Your task to perform on an android device: change your default location settings in chrome Image 0: 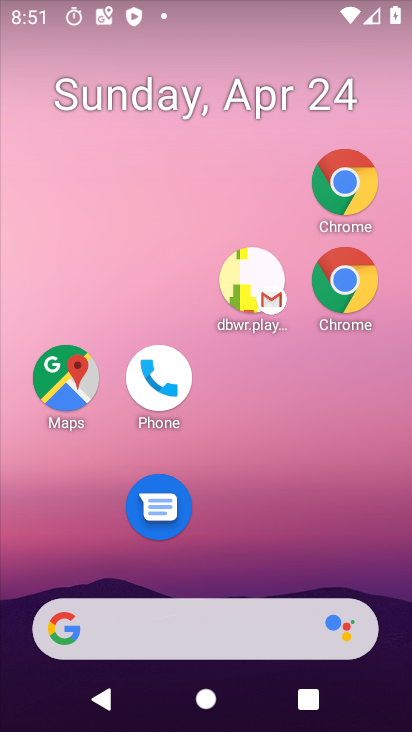
Step 0: drag from (244, 676) to (166, 121)
Your task to perform on an android device: change your default location settings in chrome Image 1: 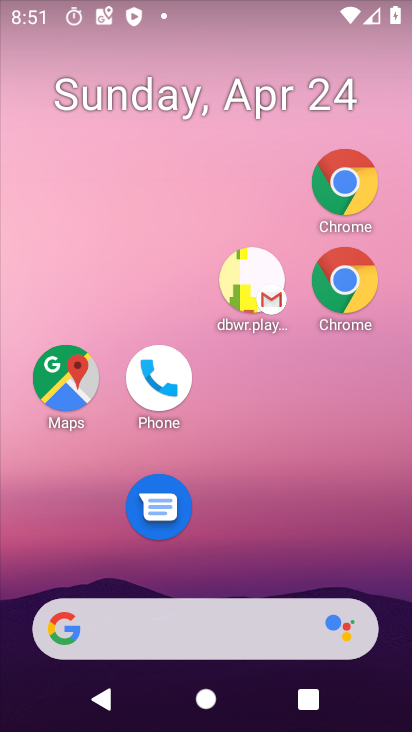
Step 1: click (340, 283)
Your task to perform on an android device: change your default location settings in chrome Image 2: 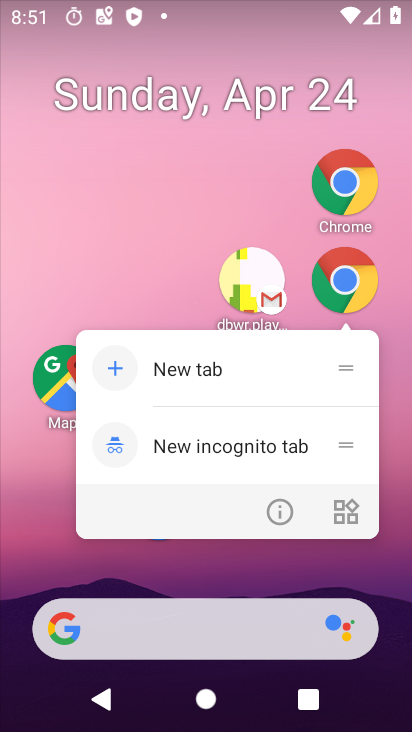
Step 2: click (158, 371)
Your task to perform on an android device: change your default location settings in chrome Image 3: 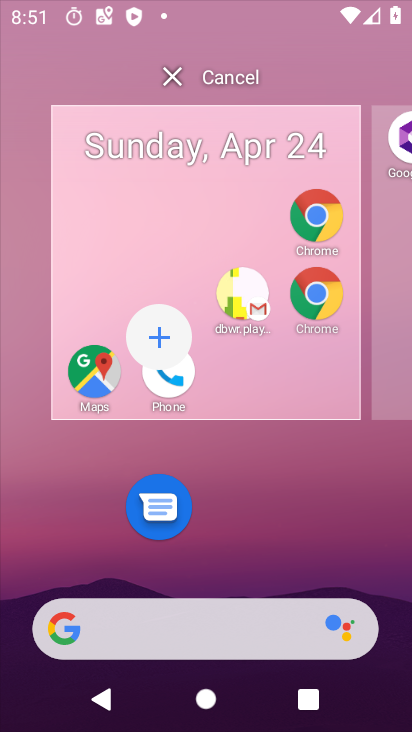
Step 3: click (184, 358)
Your task to perform on an android device: change your default location settings in chrome Image 4: 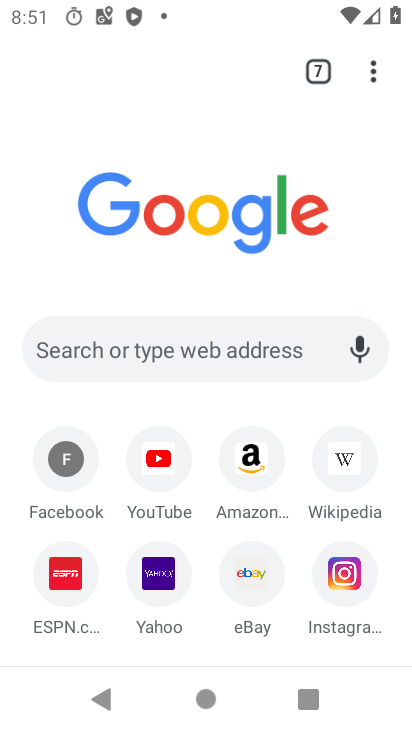
Step 4: drag from (371, 76) to (138, 510)
Your task to perform on an android device: change your default location settings in chrome Image 5: 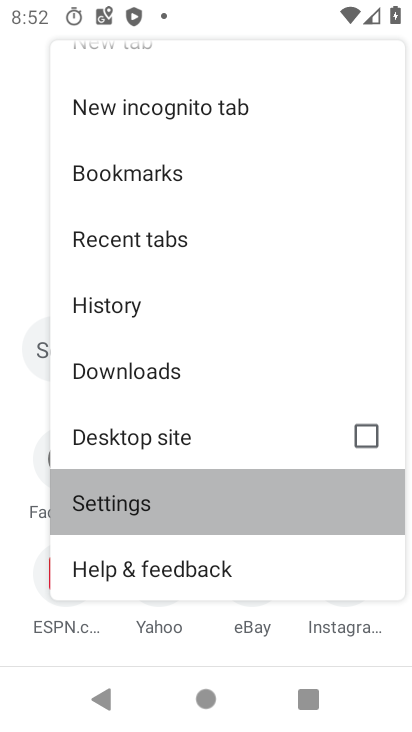
Step 5: click (146, 504)
Your task to perform on an android device: change your default location settings in chrome Image 6: 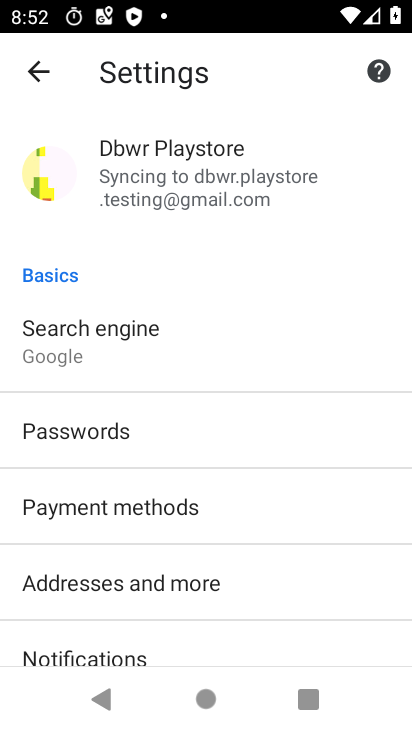
Step 6: drag from (189, 487) to (184, 21)
Your task to perform on an android device: change your default location settings in chrome Image 7: 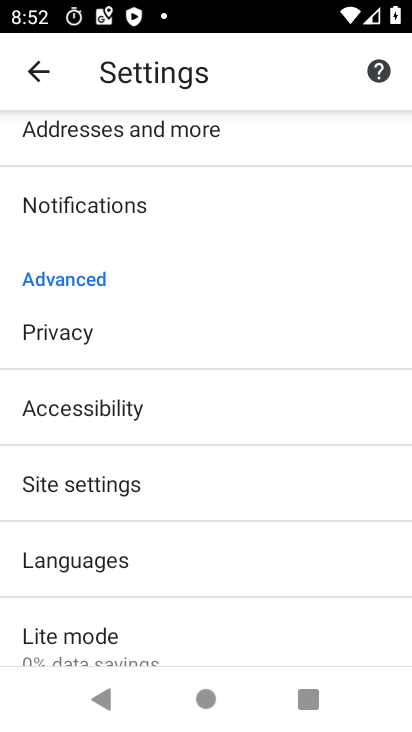
Step 7: click (68, 492)
Your task to perform on an android device: change your default location settings in chrome Image 8: 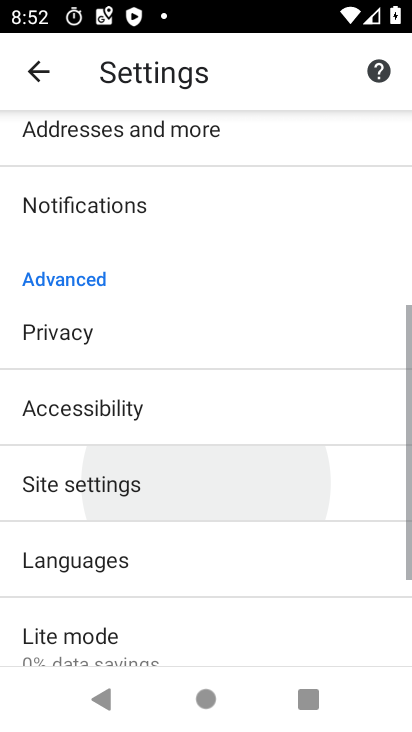
Step 8: click (68, 492)
Your task to perform on an android device: change your default location settings in chrome Image 9: 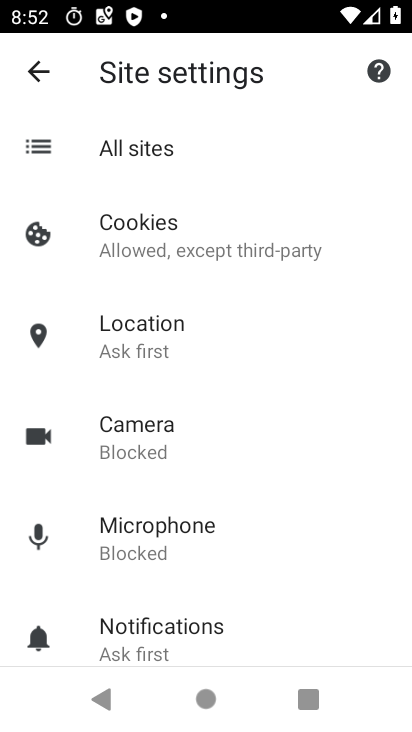
Step 9: click (150, 334)
Your task to perform on an android device: change your default location settings in chrome Image 10: 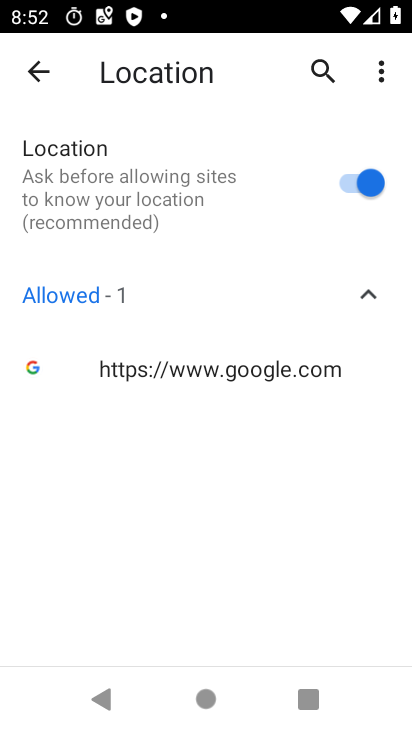
Step 10: click (372, 187)
Your task to perform on an android device: change your default location settings in chrome Image 11: 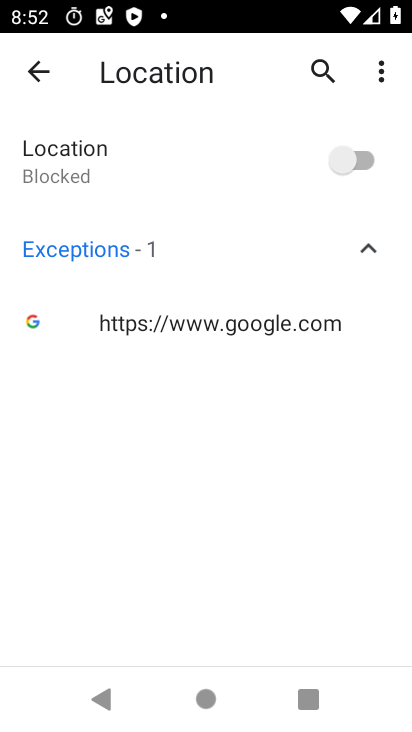
Step 11: task complete